Your task to perform on an android device: allow notifications from all sites in the chrome app Image 0: 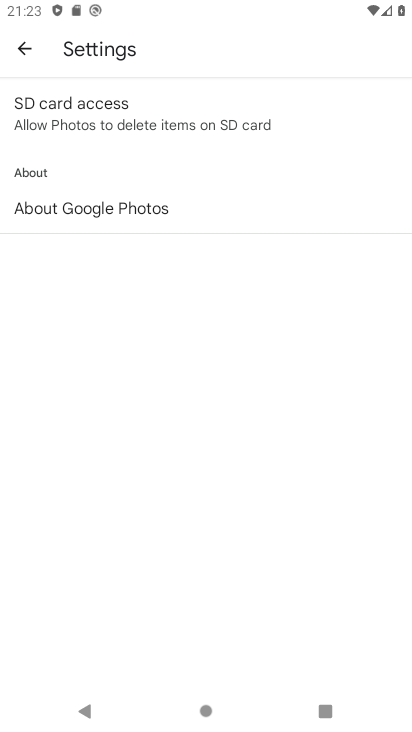
Step 0: press home button
Your task to perform on an android device: allow notifications from all sites in the chrome app Image 1: 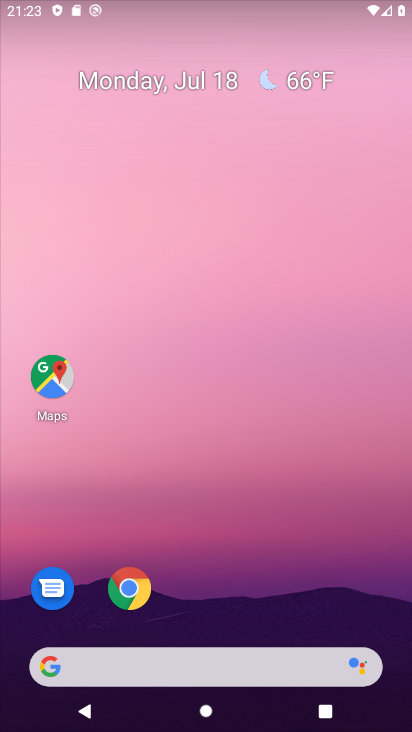
Step 1: drag from (208, 625) to (301, 99)
Your task to perform on an android device: allow notifications from all sites in the chrome app Image 2: 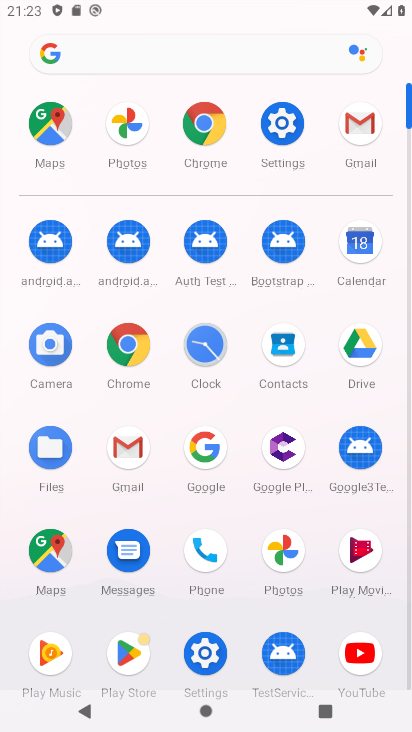
Step 2: click (143, 376)
Your task to perform on an android device: allow notifications from all sites in the chrome app Image 3: 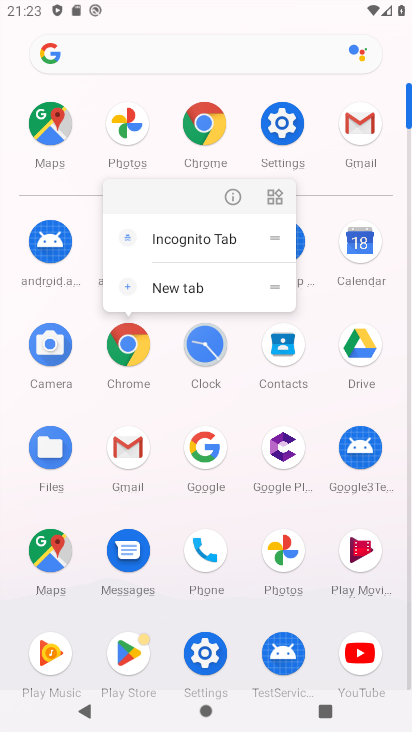
Step 3: click (195, 112)
Your task to perform on an android device: allow notifications from all sites in the chrome app Image 4: 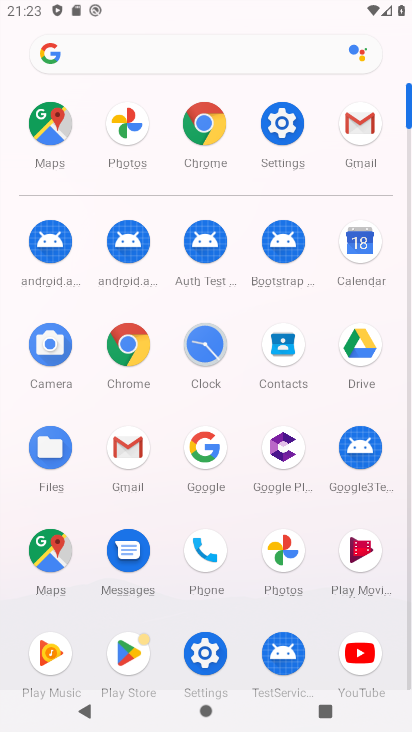
Step 4: click (213, 133)
Your task to perform on an android device: allow notifications from all sites in the chrome app Image 5: 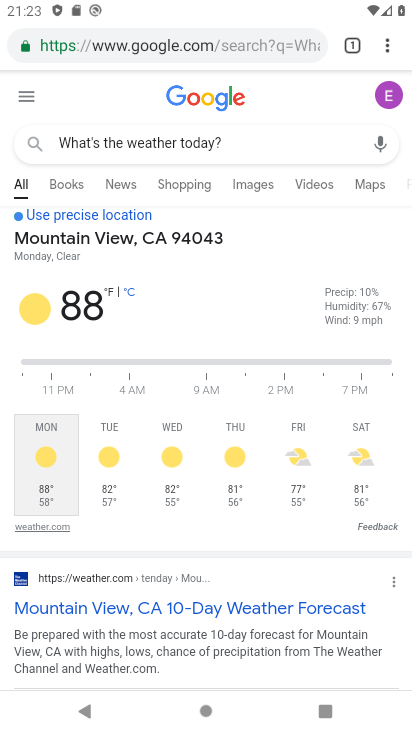
Step 5: press back button
Your task to perform on an android device: allow notifications from all sites in the chrome app Image 6: 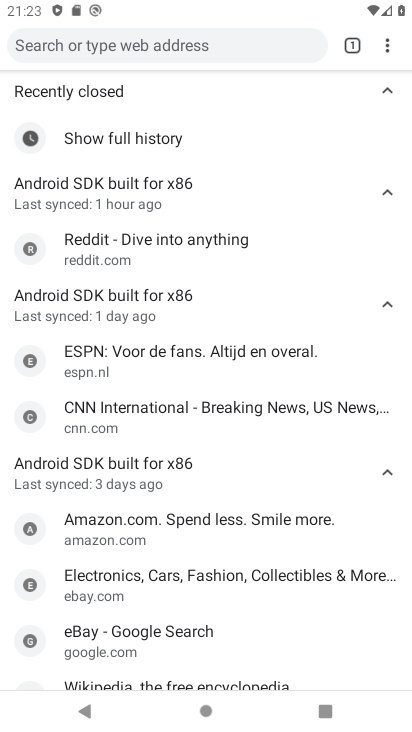
Step 6: press home button
Your task to perform on an android device: allow notifications from all sites in the chrome app Image 7: 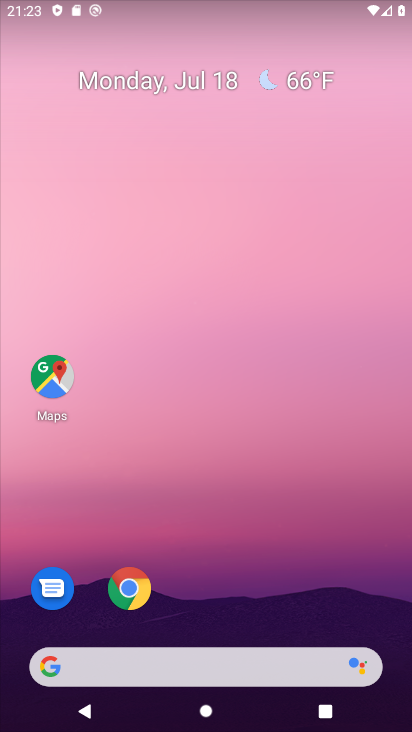
Step 7: click (140, 607)
Your task to perform on an android device: allow notifications from all sites in the chrome app Image 8: 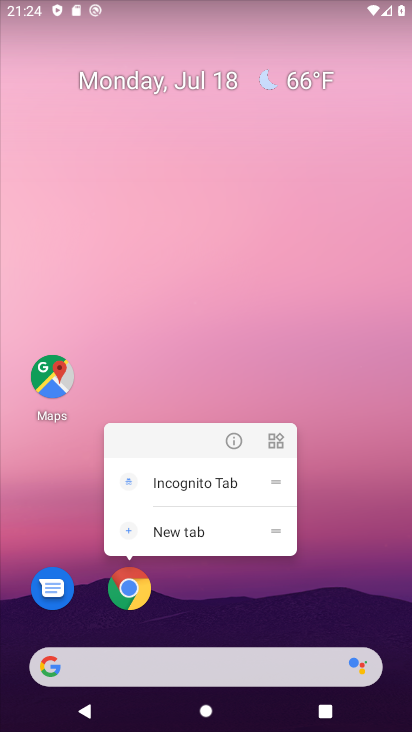
Step 8: click (236, 434)
Your task to perform on an android device: allow notifications from all sites in the chrome app Image 9: 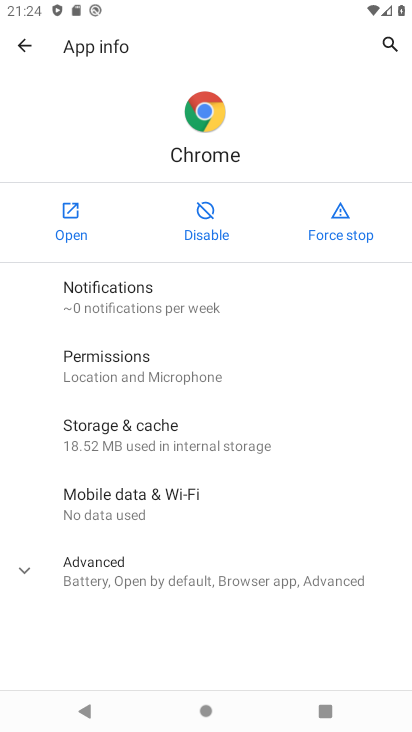
Step 9: click (113, 355)
Your task to perform on an android device: allow notifications from all sites in the chrome app Image 10: 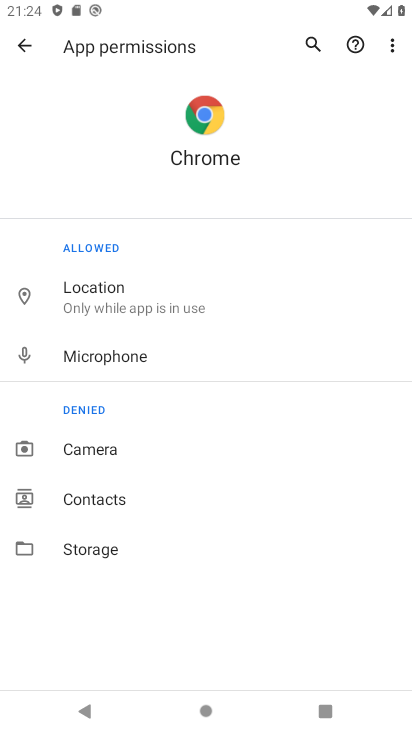
Step 10: click (80, 471)
Your task to perform on an android device: allow notifications from all sites in the chrome app Image 11: 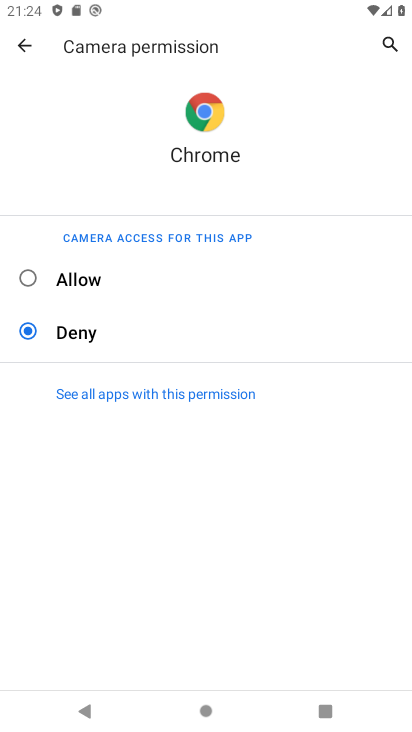
Step 11: click (90, 273)
Your task to perform on an android device: allow notifications from all sites in the chrome app Image 12: 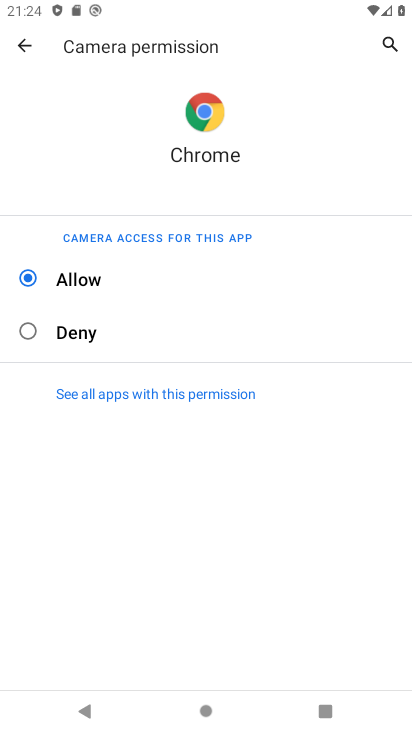
Step 12: click (21, 30)
Your task to perform on an android device: allow notifications from all sites in the chrome app Image 13: 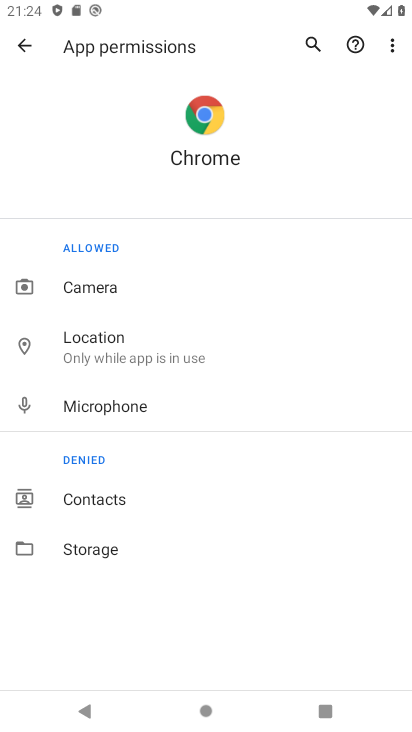
Step 13: click (76, 500)
Your task to perform on an android device: allow notifications from all sites in the chrome app Image 14: 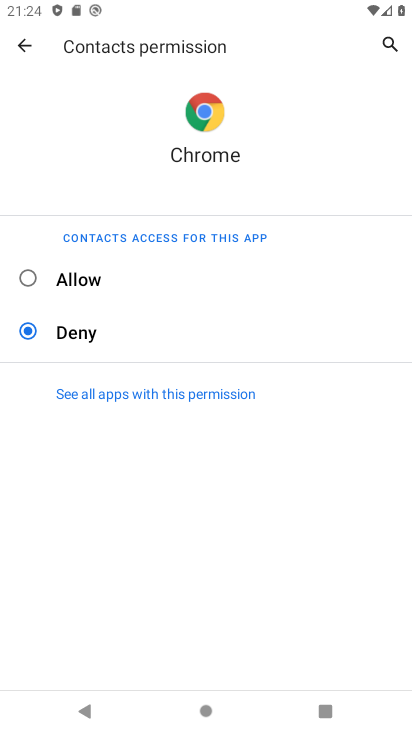
Step 14: click (71, 294)
Your task to perform on an android device: allow notifications from all sites in the chrome app Image 15: 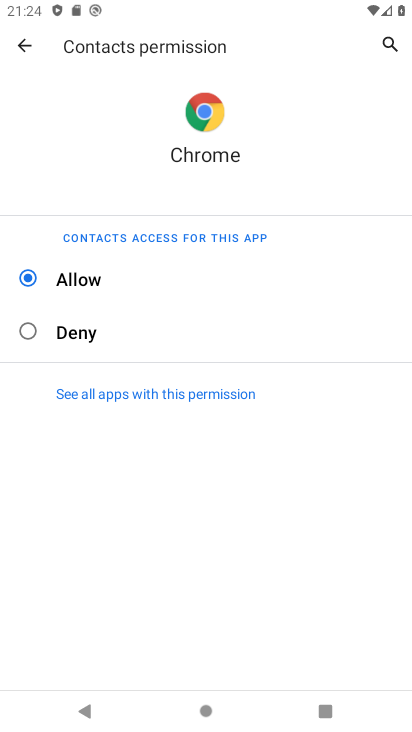
Step 15: click (17, 34)
Your task to perform on an android device: allow notifications from all sites in the chrome app Image 16: 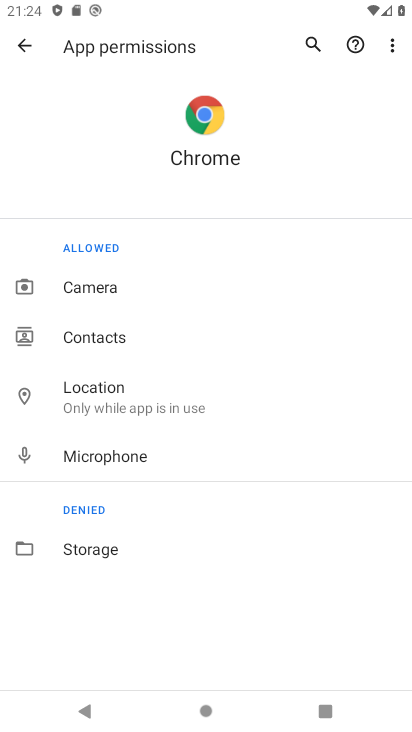
Step 16: click (75, 543)
Your task to perform on an android device: allow notifications from all sites in the chrome app Image 17: 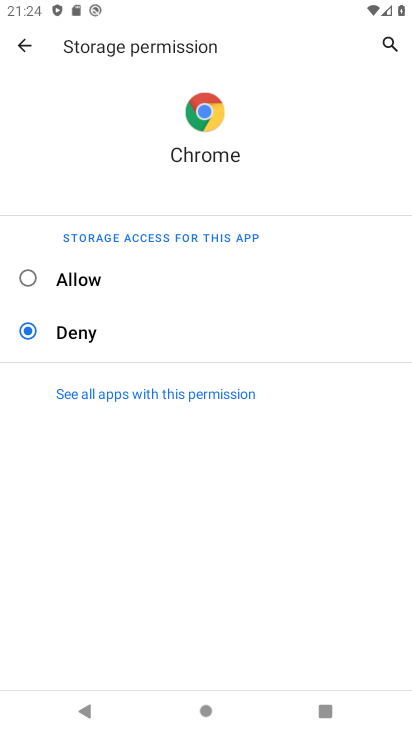
Step 17: click (69, 283)
Your task to perform on an android device: allow notifications from all sites in the chrome app Image 18: 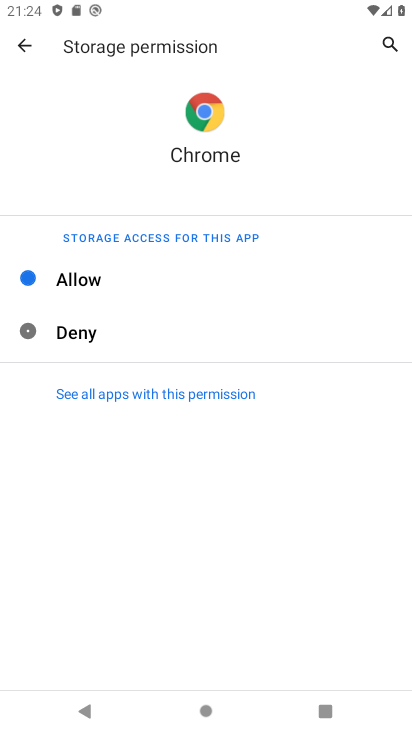
Step 18: click (22, 38)
Your task to perform on an android device: allow notifications from all sites in the chrome app Image 19: 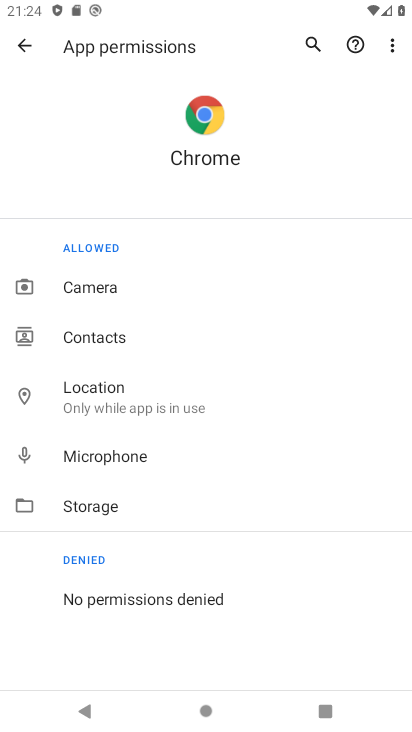
Step 19: task complete